Your task to perform on an android device: turn off smart reply in the gmail app Image 0: 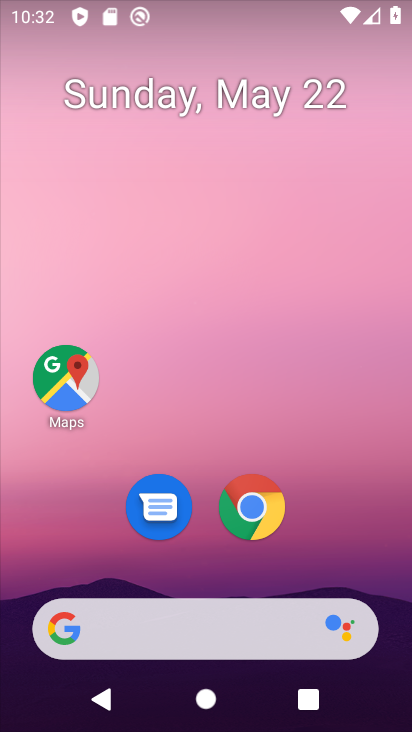
Step 0: drag from (336, 544) to (246, 113)
Your task to perform on an android device: turn off smart reply in the gmail app Image 1: 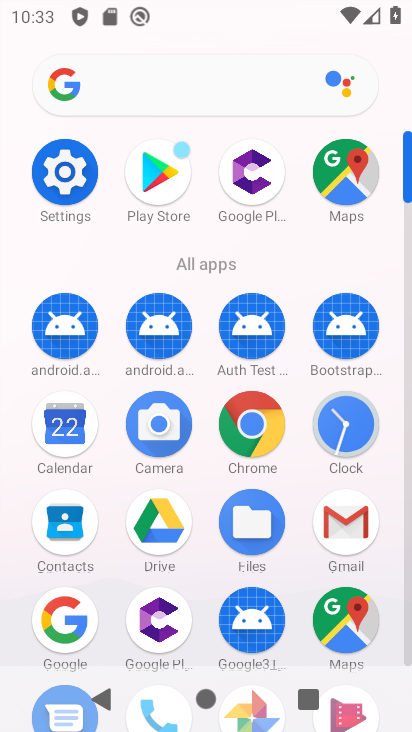
Step 1: click (363, 528)
Your task to perform on an android device: turn off smart reply in the gmail app Image 2: 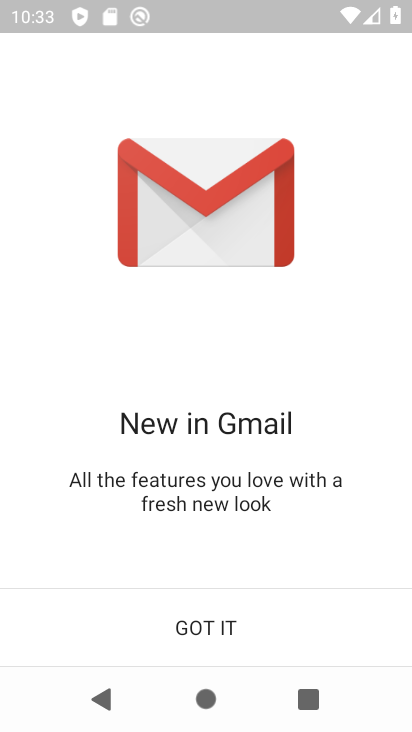
Step 2: click (214, 631)
Your task to perform on an android device: turn off smart reply in the gmail app Image 3: 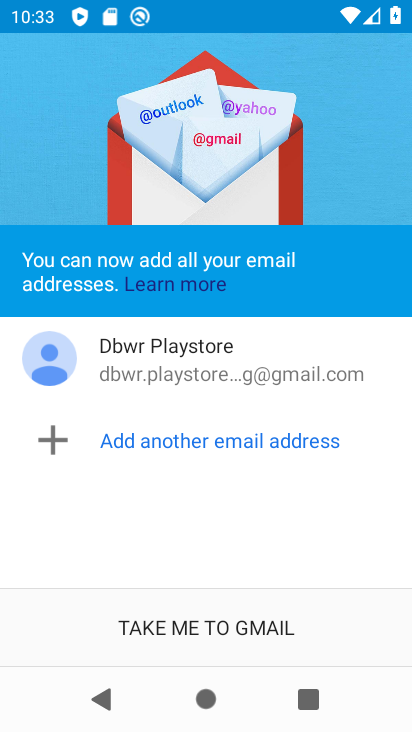
Step 3: click (214, 631)
Your task to perform on an android device: turn off smart reply in the gmail app Image 4: 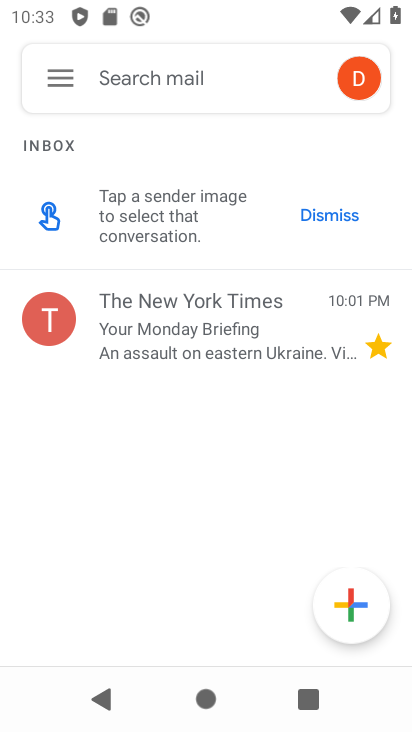
Step 4: click (62, 68)
Your task to perform on an android device: turn off smart reply in the gmail app Image 5: 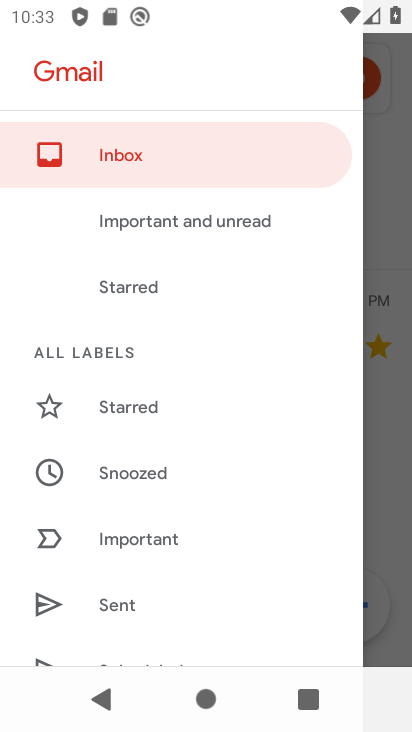
Step 5: drag from (185, 630) to (104, 154)
Your task to perform on an android device: turn off smart reply in the gmail app Image 6: 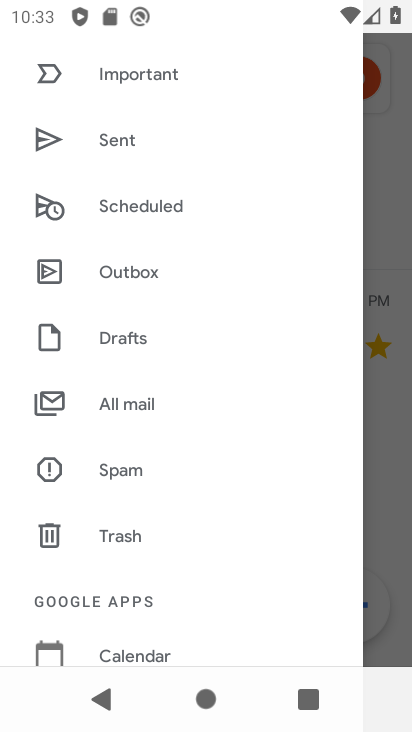
Step 6: drag from (169, 622) to (110, 181)
Your task to perform on an android device: turn off smart reply in the gmail app Image 7: 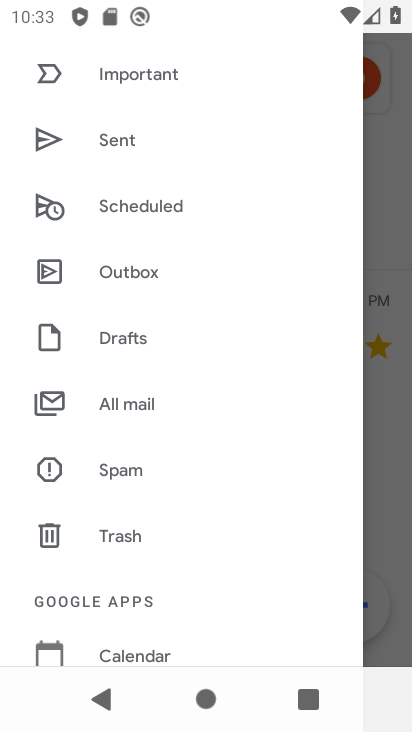
Step 7: drag from (200, 622) to (131, 203)
Your task to perform on an android device: turn off smart reply in the gmail app Image 8: 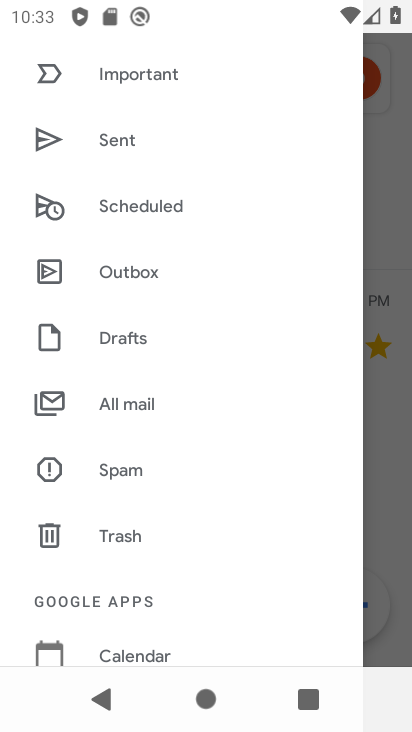
Step 8: drag from (137, 621) to (70, 70)
Your task to perform on an android device: turn off smart reply in the gmail app Image 9: 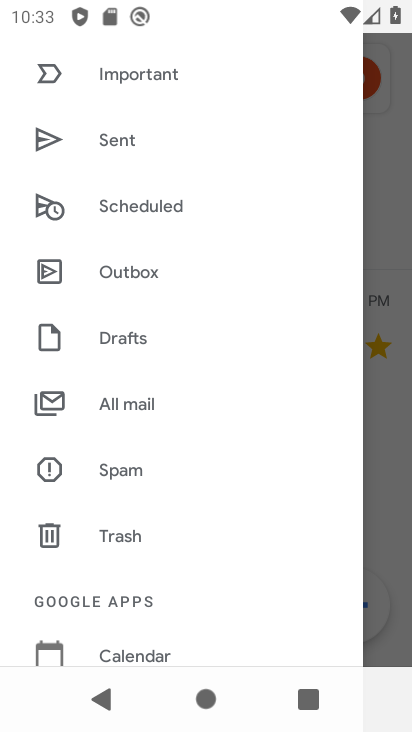
Step 9: drag from (128, 607) to (79, 254)
Your task to perform on an android device: turn off smart reply in the gmail app Image 10: 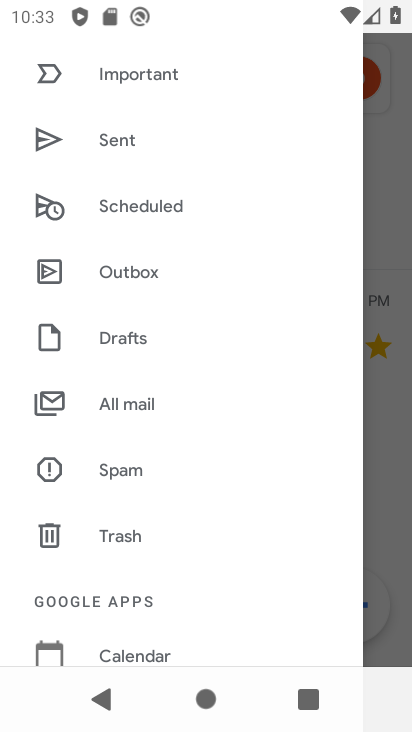
Step 10: drag from (141, 607) to (166, 46)
Your task to perform on an android device: turn off smart reply in the gmail app Image 11: 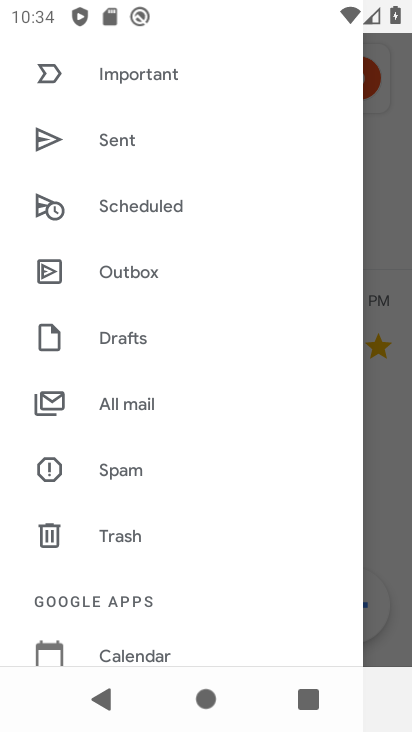
Step 11: drag from (229, 619) to (199, 29)
Your task to perform on an android device: turn off smart reply in the gmail app Image 12: 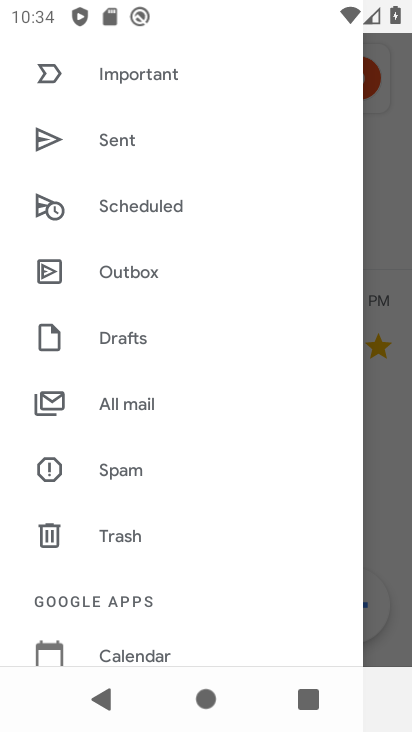
Step 12: drag from (123, 565) to (120, 12)
Your task to perform on an android device: turn off smart reply in the gmail app Image 13: 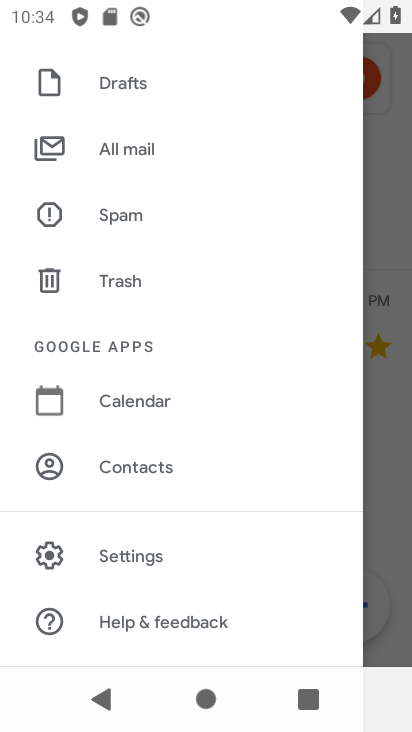
Step 13: click (128, 574)
Your task to perform on an android device: turn off smart reply in the gmail app Image 14: 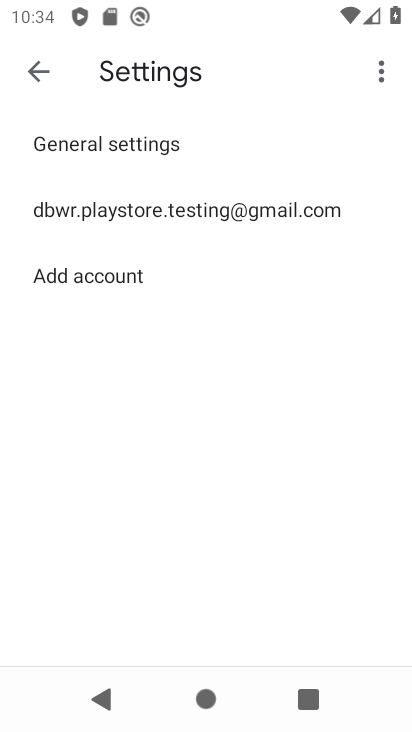
Step 14: click (214, 201)
Your task to perform on an android device: turn off smart reply in the gmail app Image 15: 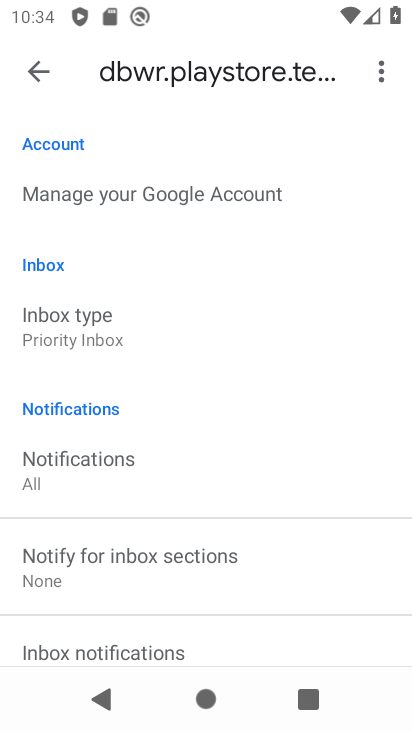
Step 15: drag from (155, 621) to (118, 18)
Your task to perform on an android device: turn off smart reply in the gmail app Image 16: 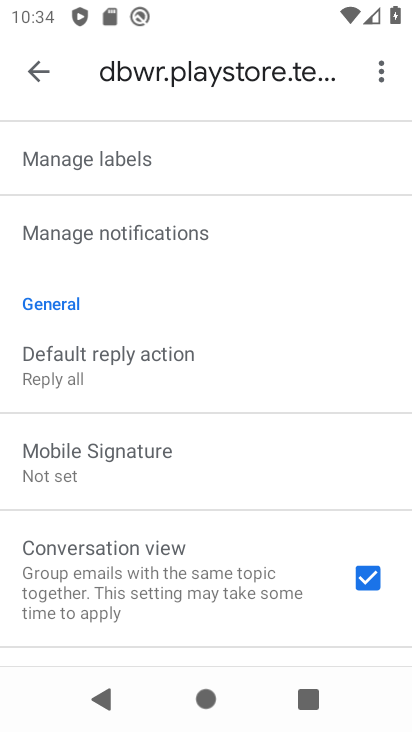
Step 16: drag from (181, 639) to (139, 89)
Your task to perform on an android device: turn off smart reply in the gmail app Image 17: 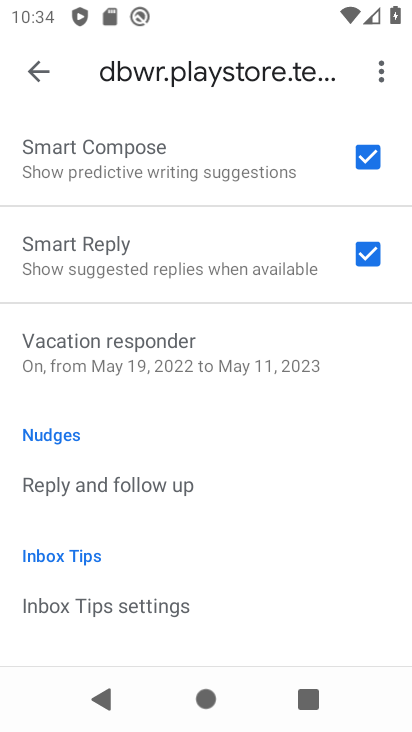
Step 17: click (369, 255)
Your task to perform on an android device: turn off smart reply in the gmail app Image 18: 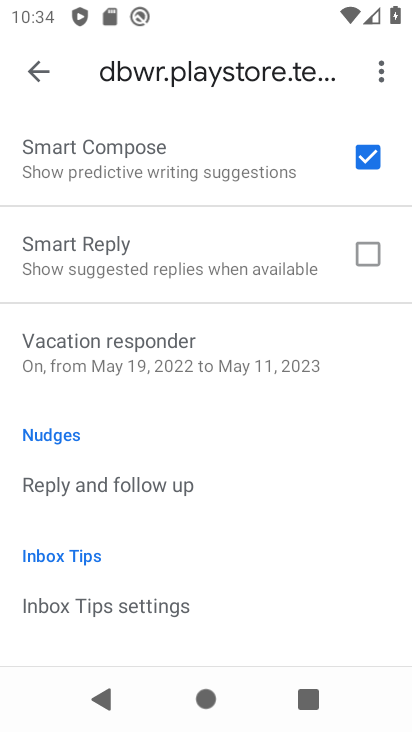
Step 18: task complete